Your task to perform on an android device: Is it going to rain today? Image 0: 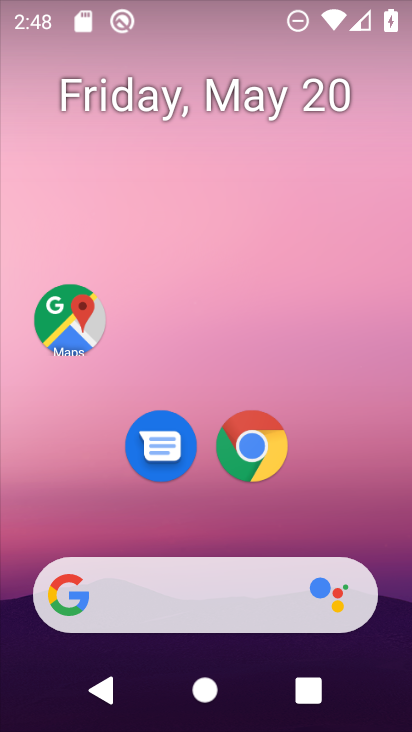
Step 0: click (122, 600)
Your task to perform on an android device: Is it going to rain today? Image 1: 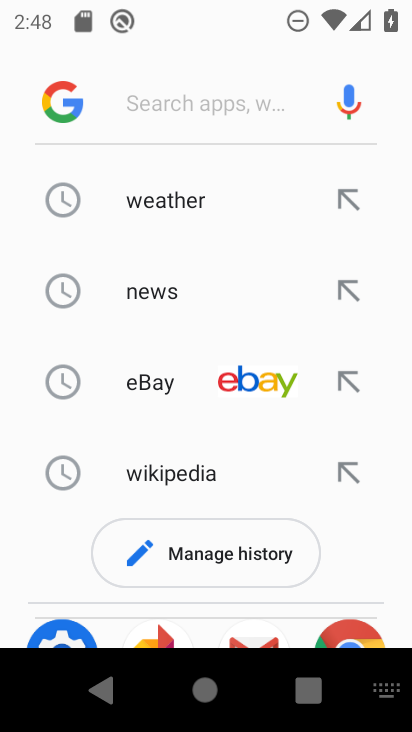
Step 1: click (155, 200)
Your task to perform on an android device: Is it going to rain today? Image 2: 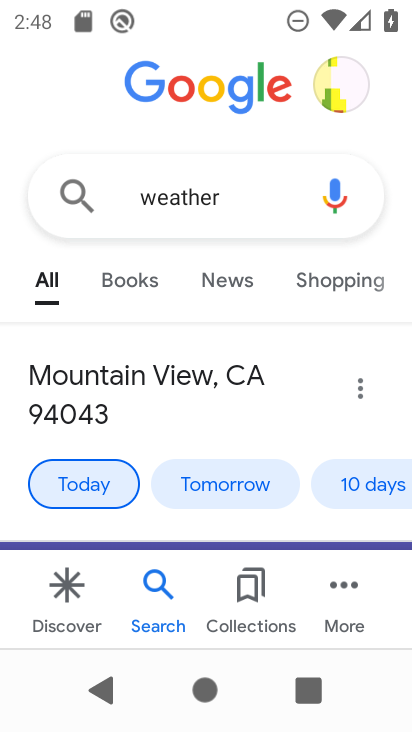
Step 2: task complete